Your task to perform on an android device: turn off smart reply in the gmail app Image 0: 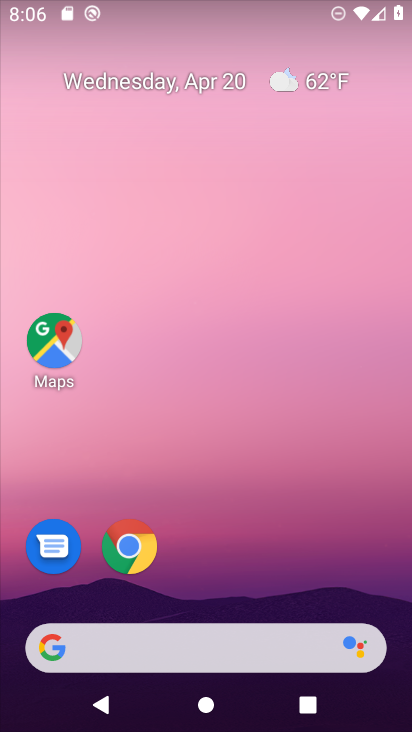
Step 0: drag from (254, 555) to (257, 134)
Your task to perform on an android device: turn off smart reply in the gmail app Image 1: 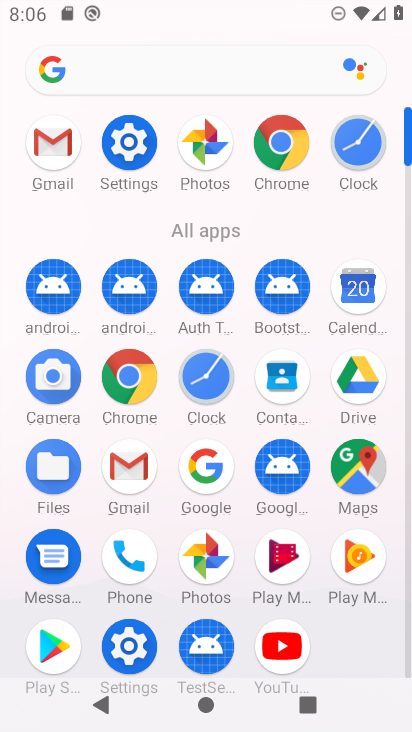
Step 1: click (53, 152)
Your task to perform on an android device: turn off smart reply in the gmail app Image 2: 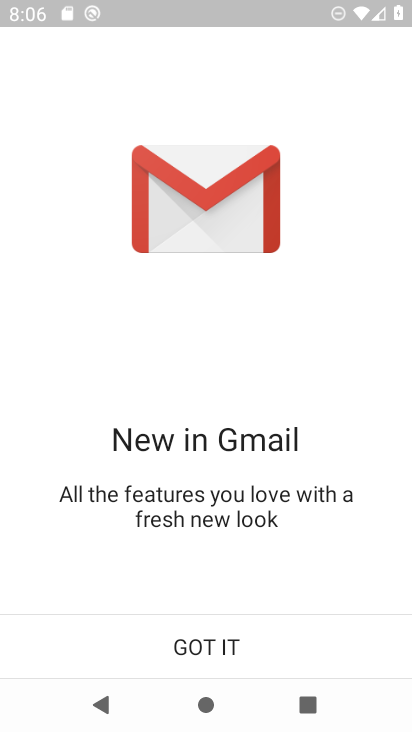
Step 2: click (214, 641)
Your task to perform on an android device: turn off smart reply in the gmail app Image 3: 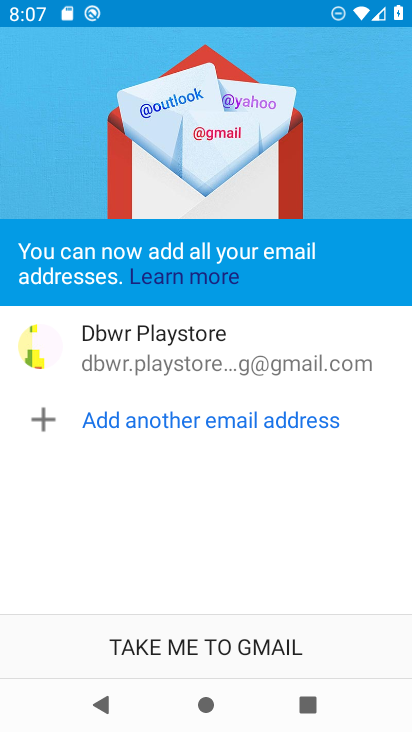
Step 3: click (214, 641)
Your task to perform on an android device: turn off smart reply in the gmail app Image 4: 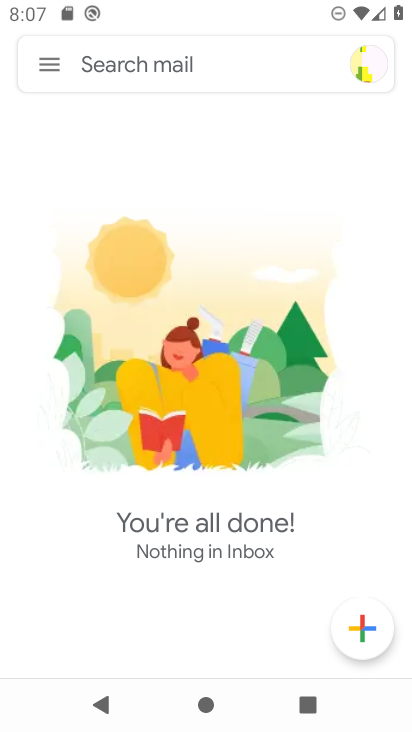
Step 4: click (51, 60)
Your task to perform on an android device: turn off smart reply in the gmail app Image 5: 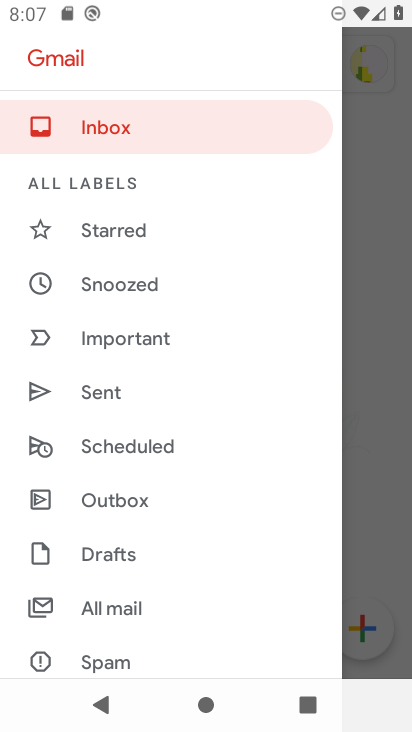
Step 5: drag from (179, 554) to (204, 85)
Your task to perform on an android device: turn off smart reply in the gmail app Image 6: 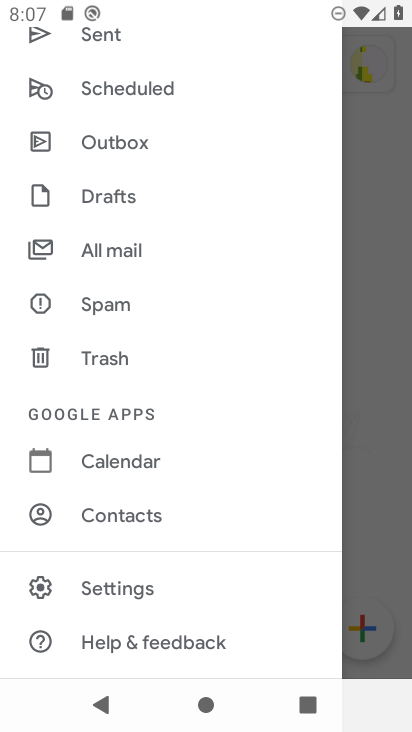
Step 6: click (121, 586)
Your task to perform on an android device: turn off smart reply in the gmail app Image 7: 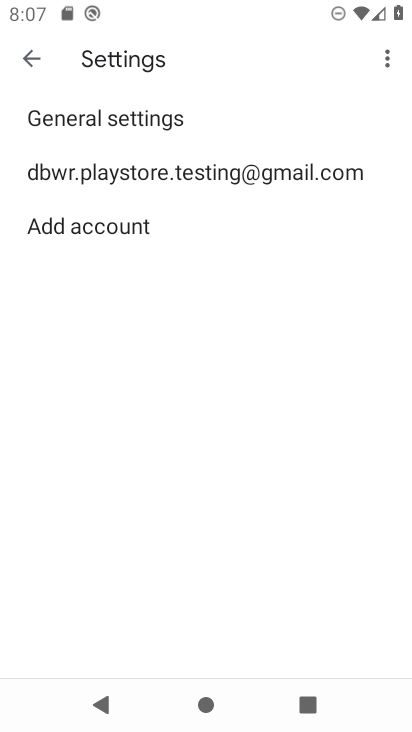
Step 7: click (280, 171)
Your task to perform on an android device: turn off smart reply in the gmail app Image 8: 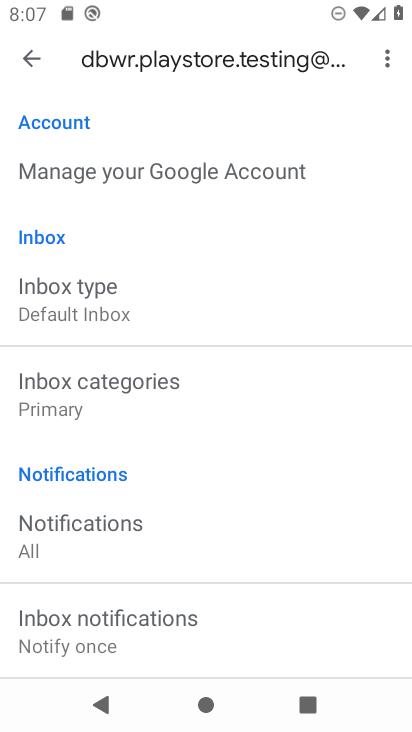
Step 8: drag from (216, 475) to (242, 106)
Your task to perform on an android device: turn off smart reply in the gmail app Image 9: 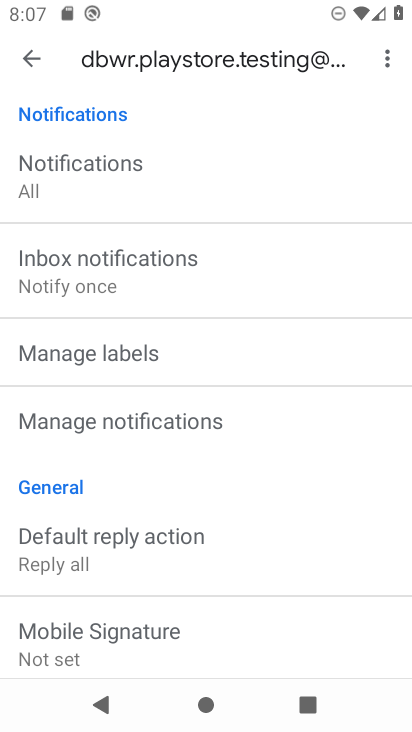
Step 9: drag from (192, 563) to (212, 177)
Your task to perform on an android device: turn off smart reply in the gmail app Image 10: 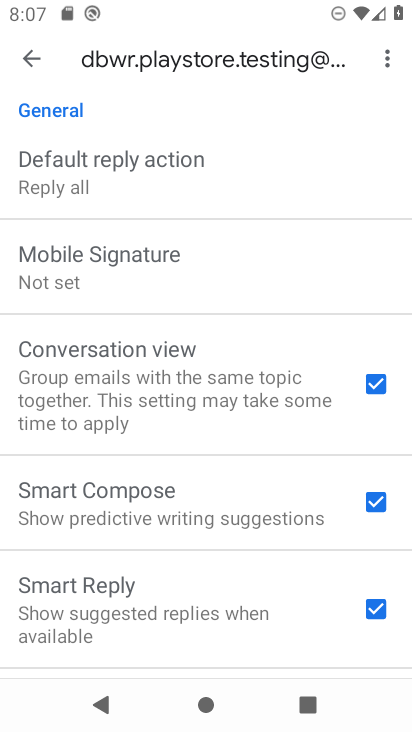
Step 10: click (372, 608)
Your task to perform on an android device: turn off smart reply in the gmail app Image 11: 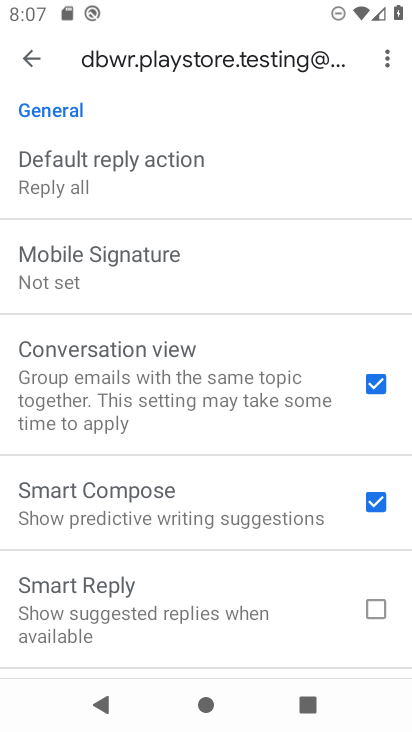
Step 11: task complete